Your task to perform on an android device: add a label to a message in the gmail app Image 0: 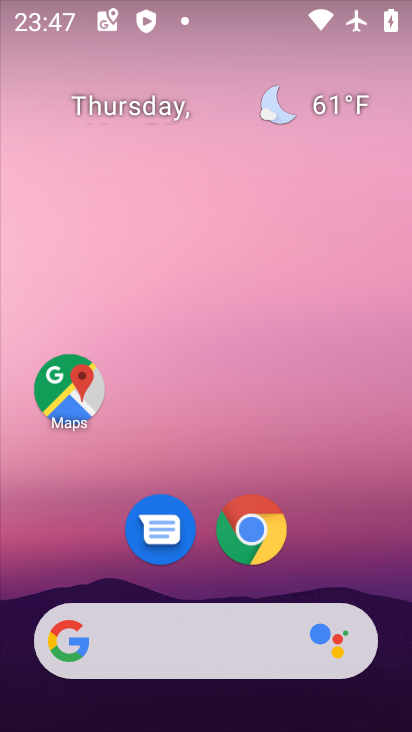
Step 0: drag from (384, 532) to (307, 119)
Your task to perform on an android device: add a label to a message in the gmail app Image 1: 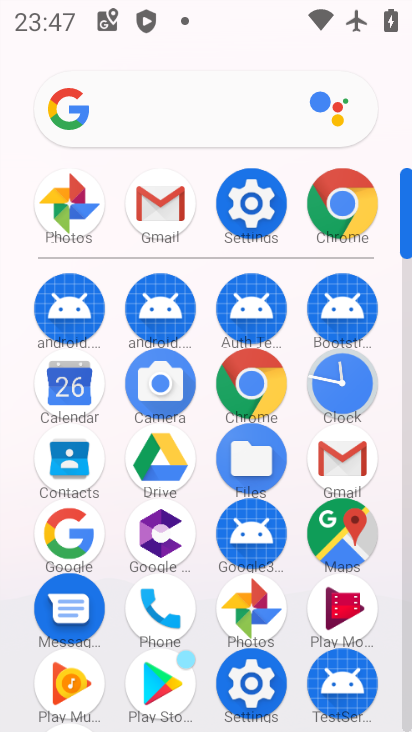
Step 1: click (336, 440)
Your task to perform on an android device: add a label to a message in the gmail app Image 2: 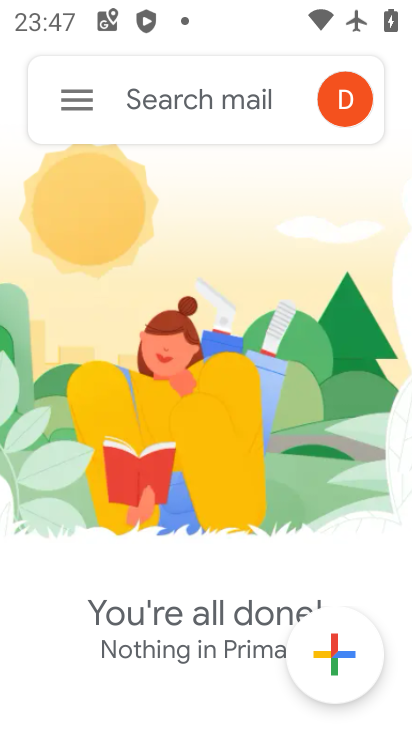
Step 2: click (47, 96)
Your task to perform on an android device: add a label to a message in the gmail app Image 3: 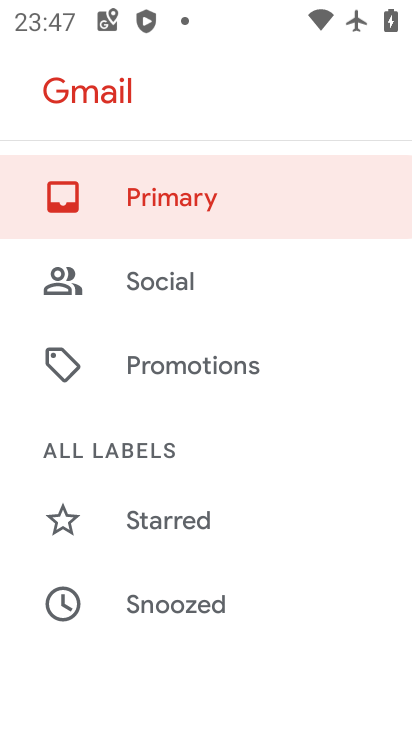
Step 3: task complete